Your task to perform on an android device: Go to Amazon Image 0: 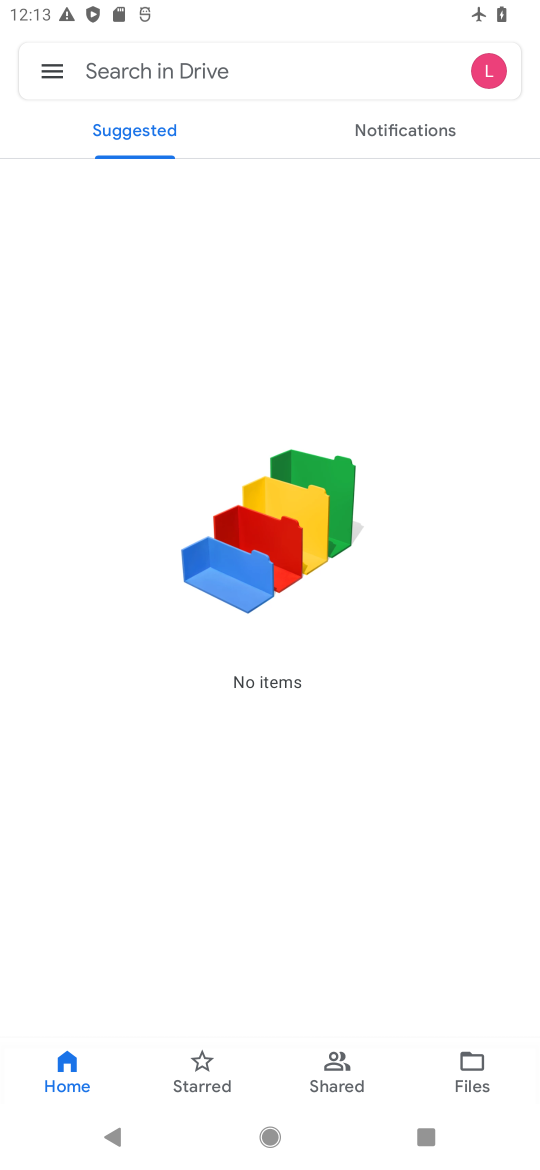
Step 0: press home button
Your task to perform on an android device: Go to Amazon Image 1: 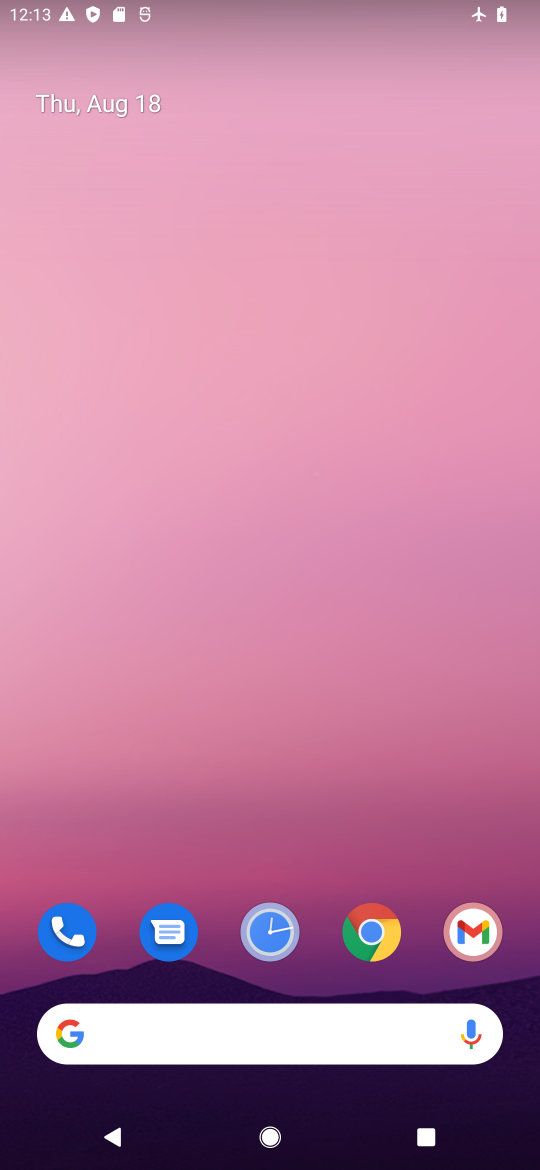
Step 1: click (376, 944)
Your task to perform on an android device: Go to Amazon Image 2: 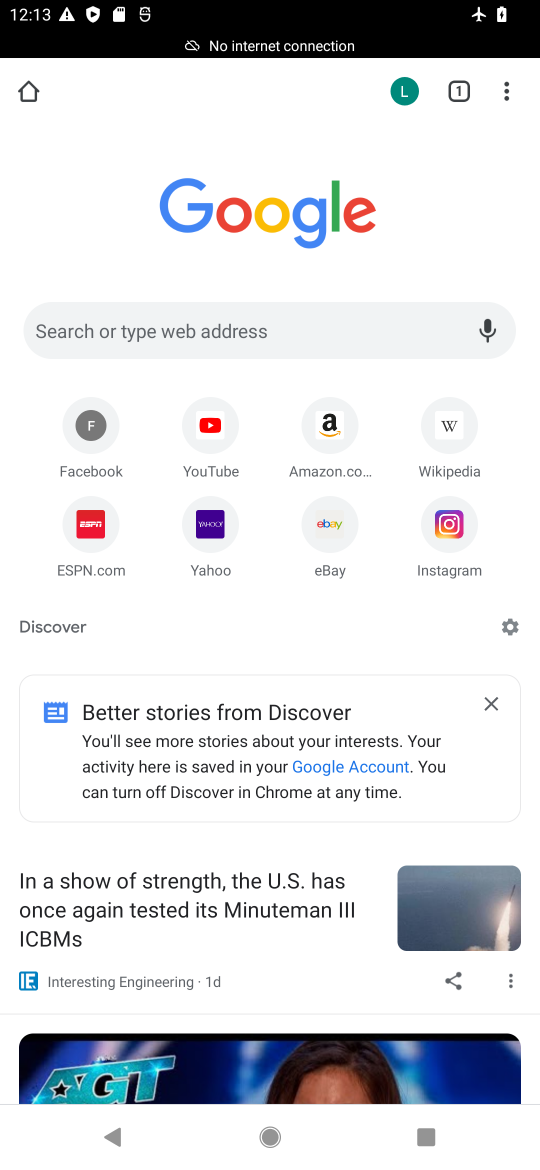
Step 2: click (331, 430)
Your task to perform on an android device: Go to Amazon Image 3: 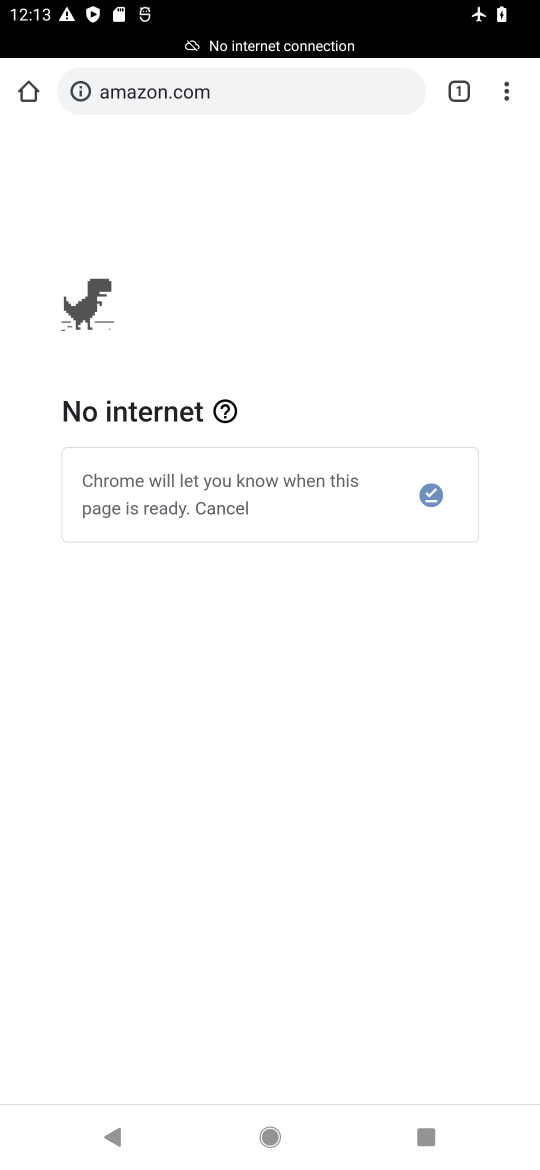
Step 3: task complete